Your task to perform on an android device: change the clock display to digital Image 0: 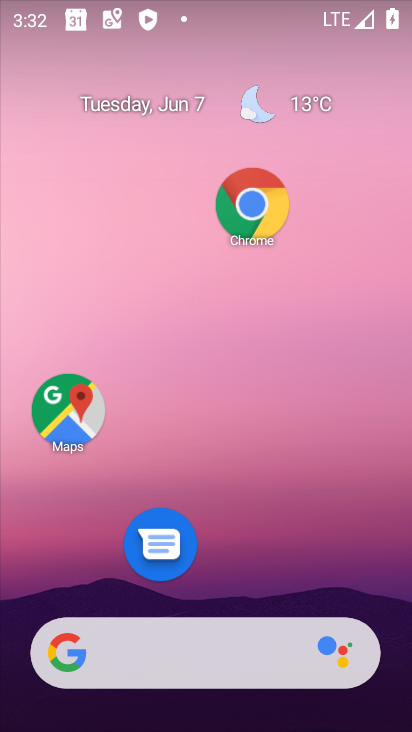
Step 0: press home button
Your task to perform on an android device: change the clock display to digital Image 1: 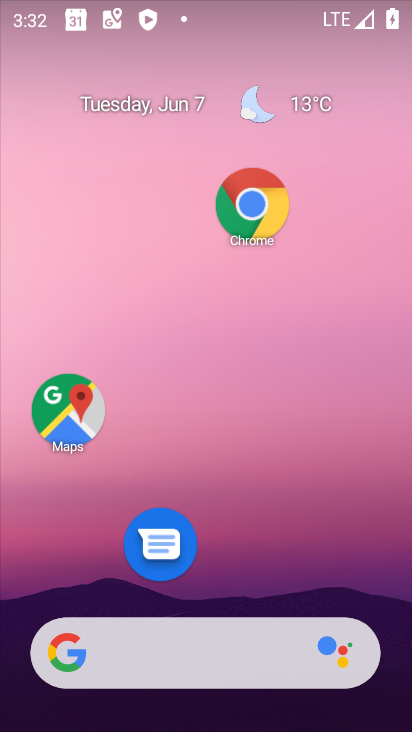
Step 1: press home button
Your task to perform on an android device: change the clock display to digital Image 2: 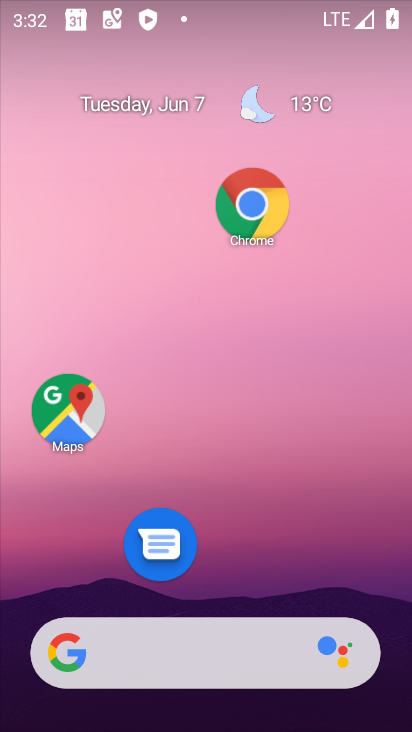
Step 2: click (227, 593)
Your task to perform on an android device: change the clock display to digital Image 3: 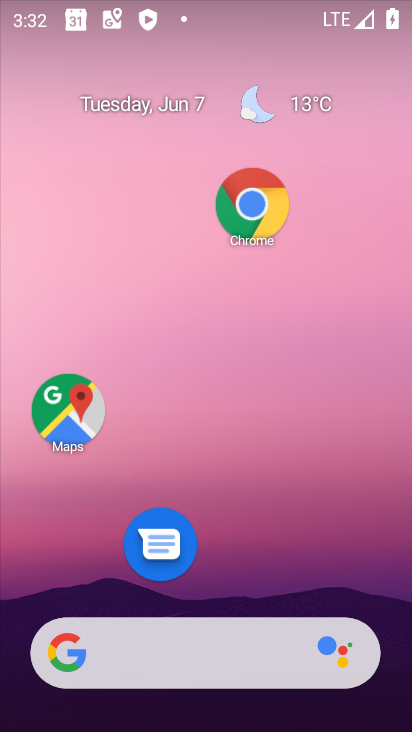
Step 3: drag from (226, 204) to (233, 61)
Your task to perform on an android device: change the clock display to digital Image 4: 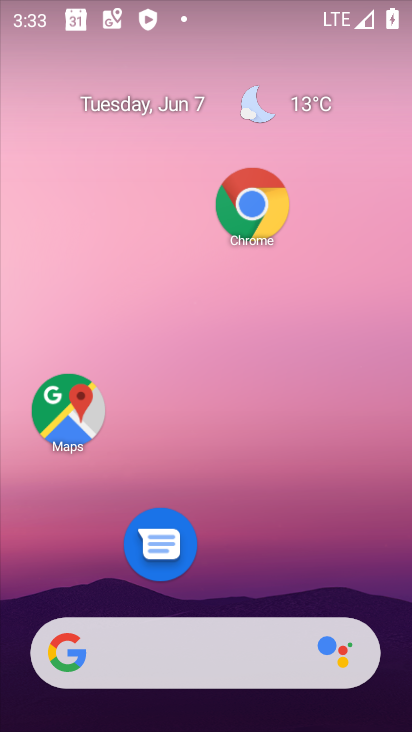
Step 4: drag from (221, 604) to (291, 8)
Your task to perform on an android device: change the clock display to digital Image 5: 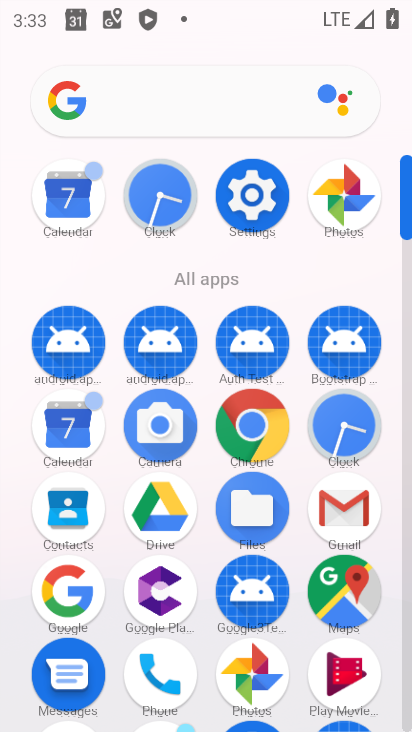
Step 5: click (158, 189)
Your task to perform on an android device: change the clock display to digital Image 6: 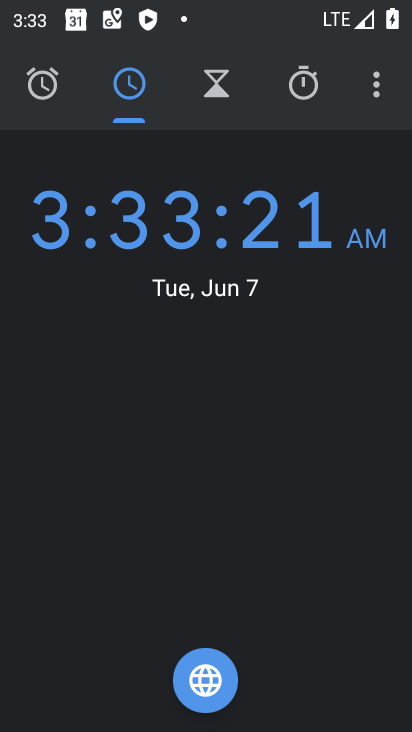
Step 6: click (376, 91)
Your task to perform on an android device: change the clock display to digital Image 7: 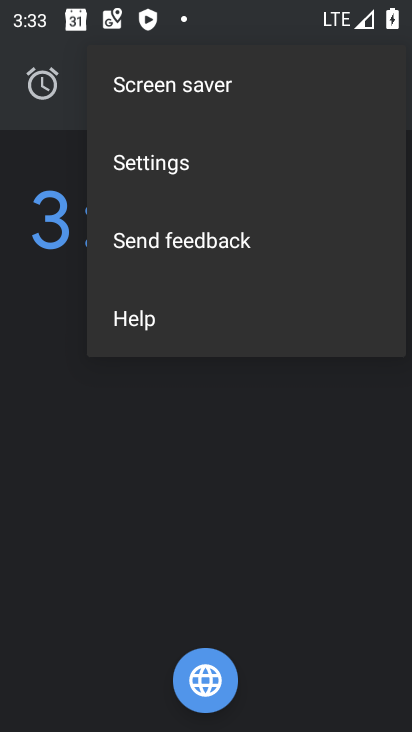
Step 7: click (202, 161)
Your task to perform on an android device: change the clock display to digital Image 8: 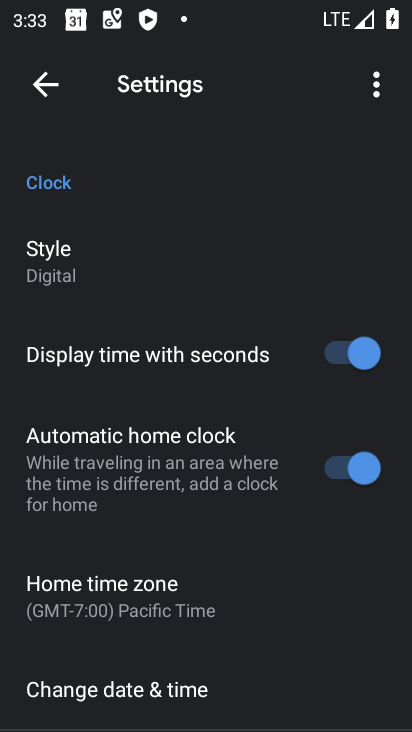
Step 8: click (86, 261)
Your task to perform on an android device: change the clock display to digital Image 9: 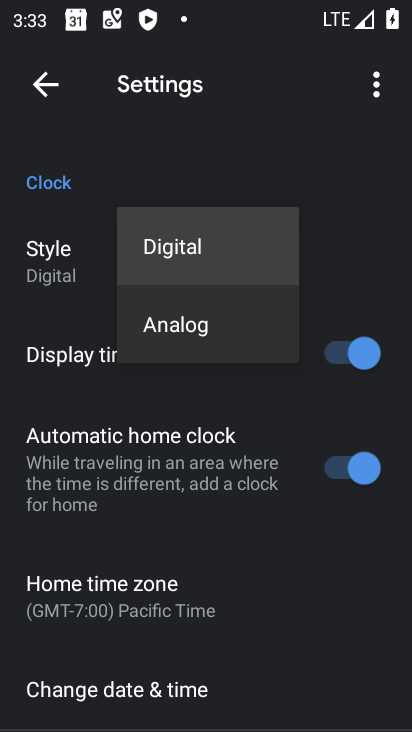
Step 9: click (215, 252)
Your task to perform on an android device: change the clock display to digital Image 10: 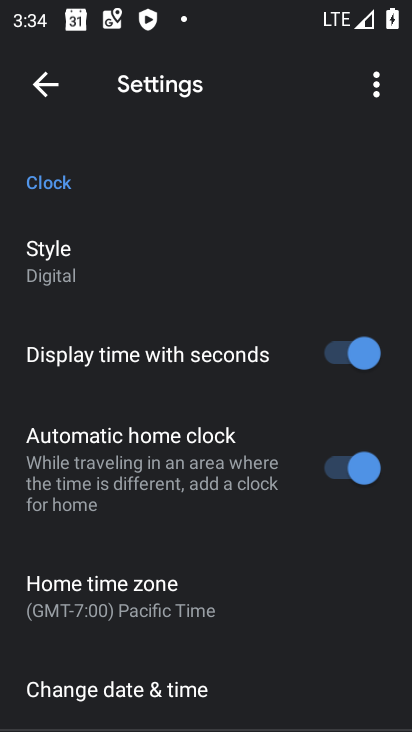
Step 10: task complete